Your task to perform on an android device: turn on wifi Image 0: 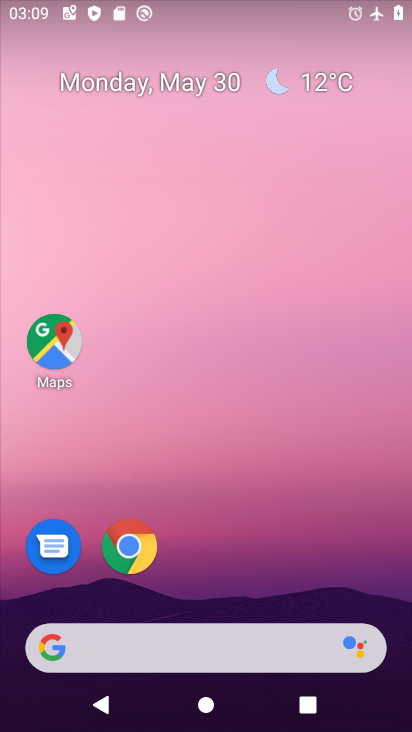
Step 0: press home button
Your task to perform on an android device: turn on wifi Image 1: 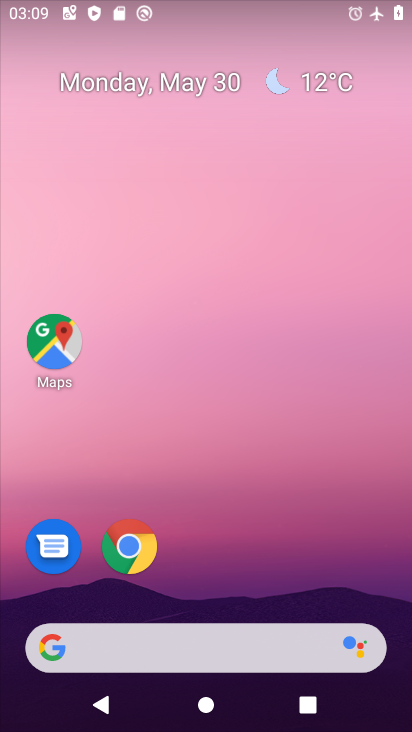
Step 1: drag from (203, 600) to (233, 66)
Your task to perform on an android device: turn on wifi Image 2: 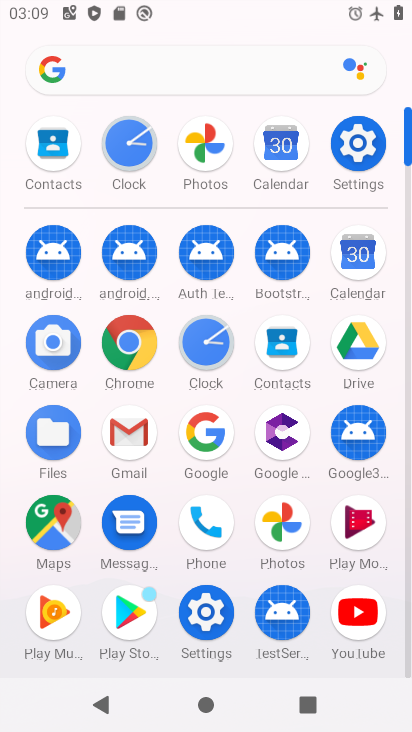
Step 2: click (360, 138)
Your task to perform on an android device: turn on wifi Image 3: 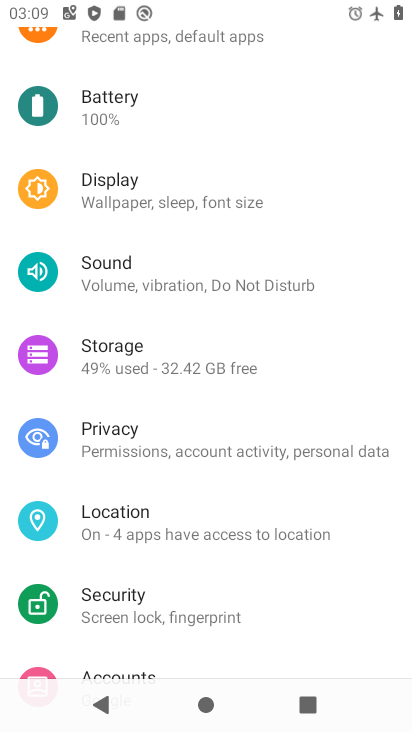
Step 3: drag from (169, 5) to (206, 587)
Your task to perform on an android device: turn on wifi Image 4: 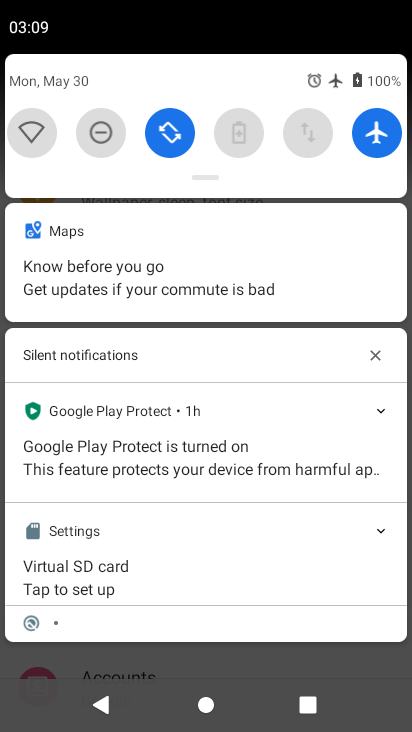
Step 4: click (31, 131)
Your task to perform on an android device: turn on wifi Image 5: 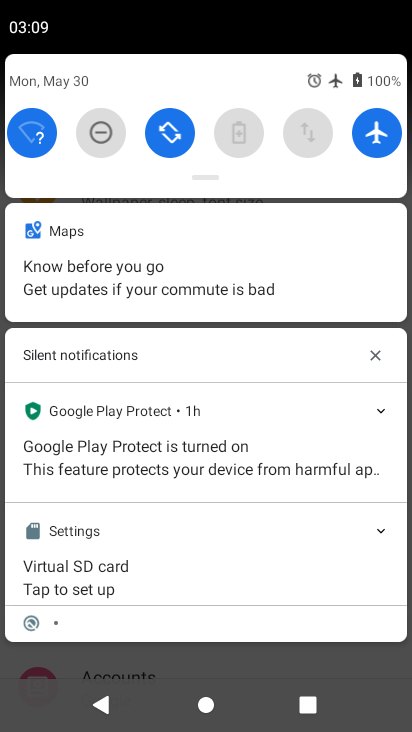
Step 5: task complete